Your task to perform on an android device: Go to location settings Image 0: 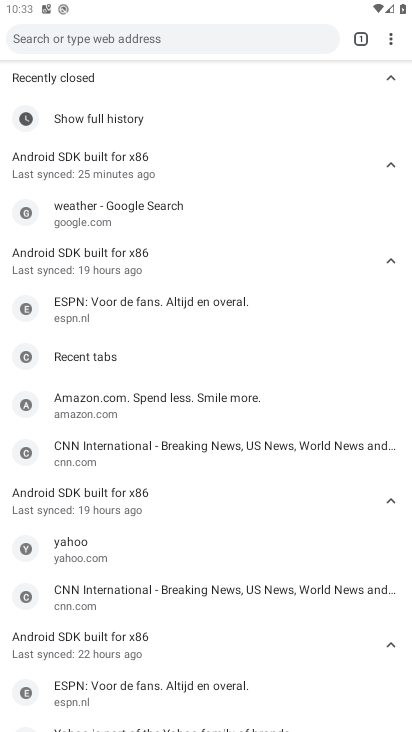
Step 0: press home button
Your task to perform on an android device: Go to location settings Image 1: 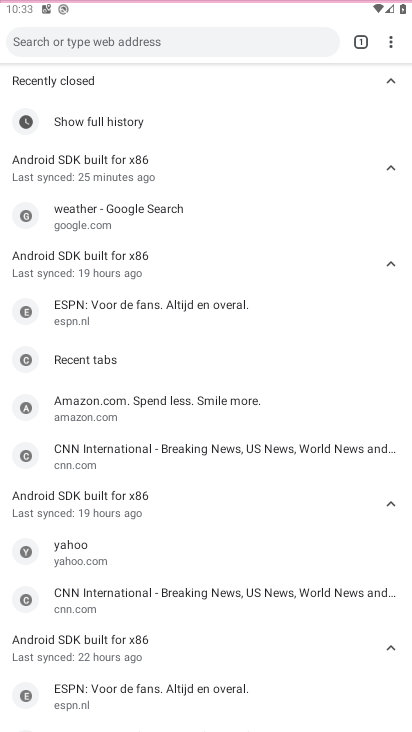
Step 1: drag from (224, 663) to (209, 66)
Your task to perform on an android device: Go to location settings Image 2: 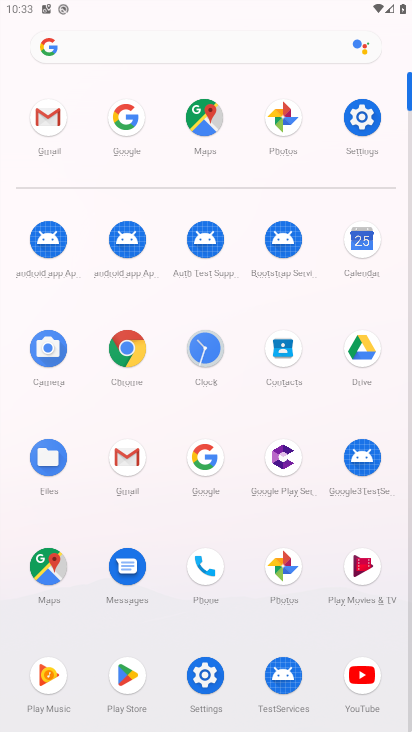
Step 2: click (368, 130)
Your task to perform on an android device: Go to location settings Image 3: 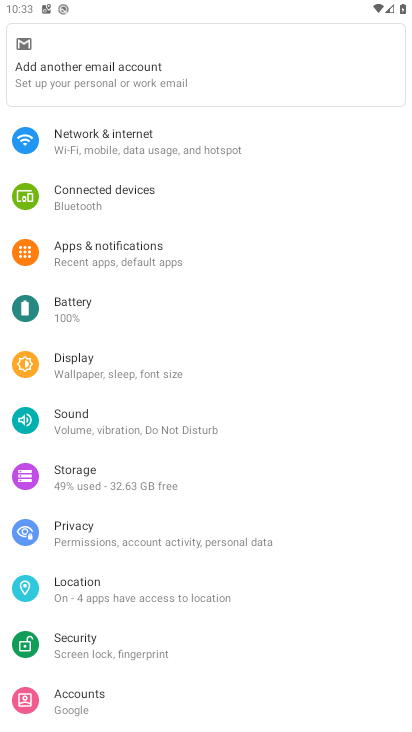
Step 3: click (78, 598)
Your task to perform on an android device: Go to location settings Image 4: 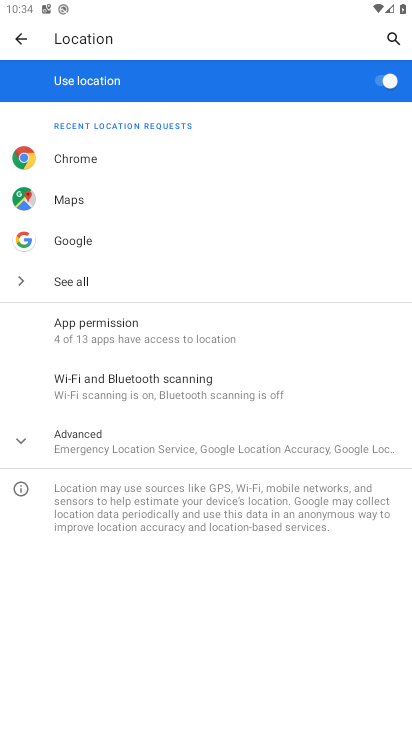
Step 4: task complete